Your task to perform on an android device: delete location history Image 0: 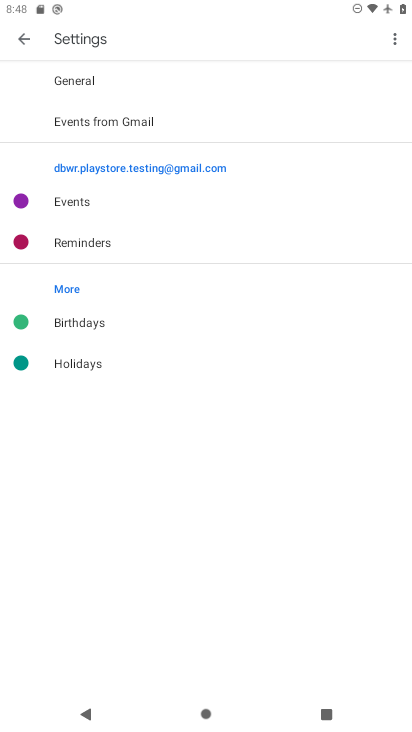
Step 0: press home button
Your task to perform on an android device: delete location history Image 1: 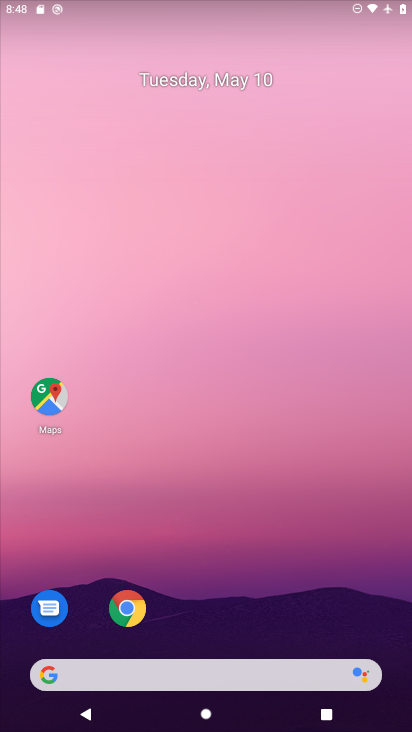
Step 1: drag from (187, 596) to (242, 237)
Your task to perform on an android device: delete location history Image 2: 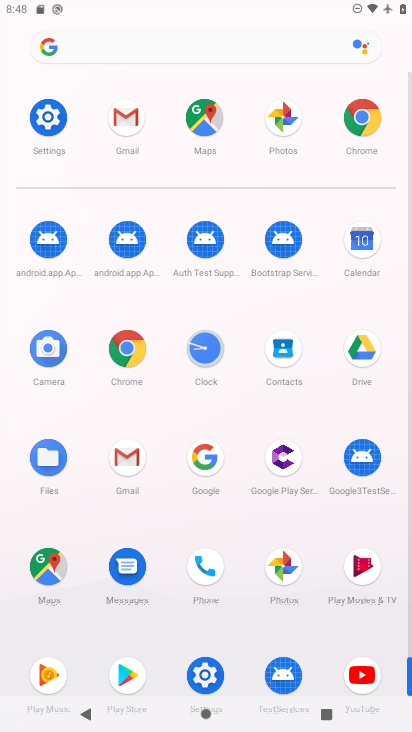
Step 2: click (207, 107)
Your task to perform on an android device: delete location history Image 3: 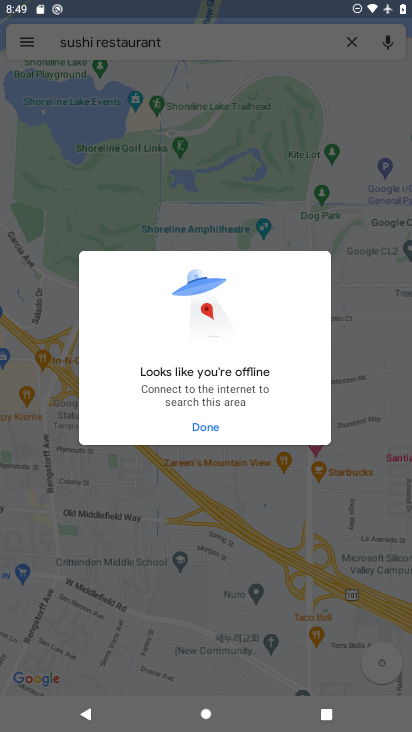
Step 3: click (212, 430)
Your task to perform on an android device: delete location history Image 4: 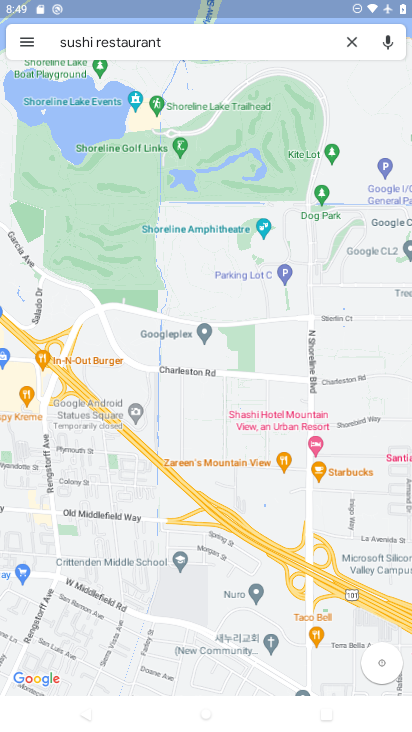
Step 4: click (18, 41)
Your task to perform on an android device: delete location history Image 5: 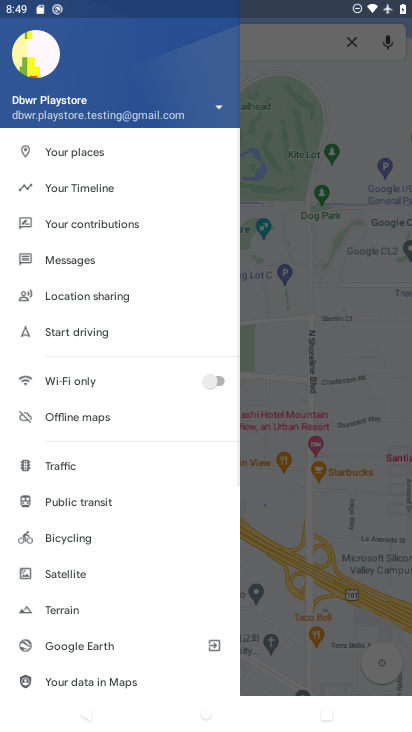
Step 5: click (60, 188)
Your task to perform on an android device: delete location history Image 6: 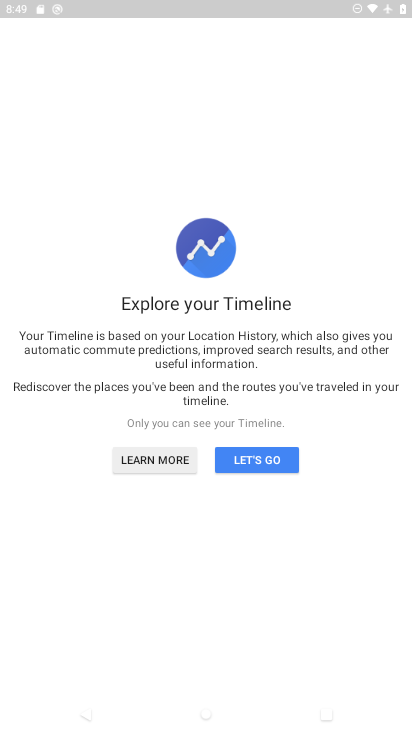
Step 6: click (255, 462)
Your task to perform on an android device: delete location history Image 7: 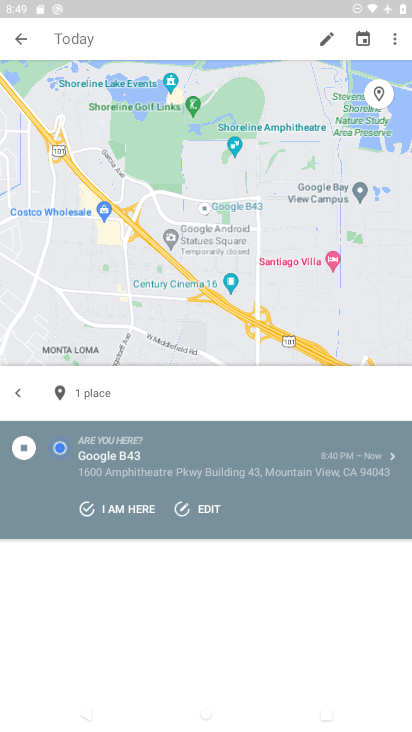
Step 7: click (389, 39)
Your task to perform on an android device: delete location history Image 8: 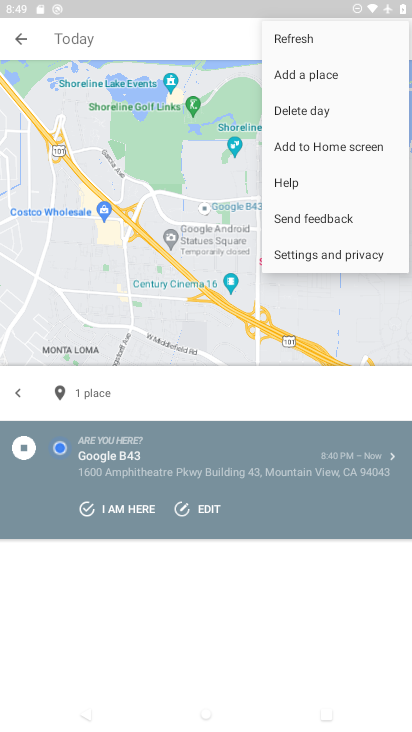
Step 8: click (312, 251)
Your task to perform on an android device: delete location history Image 9: 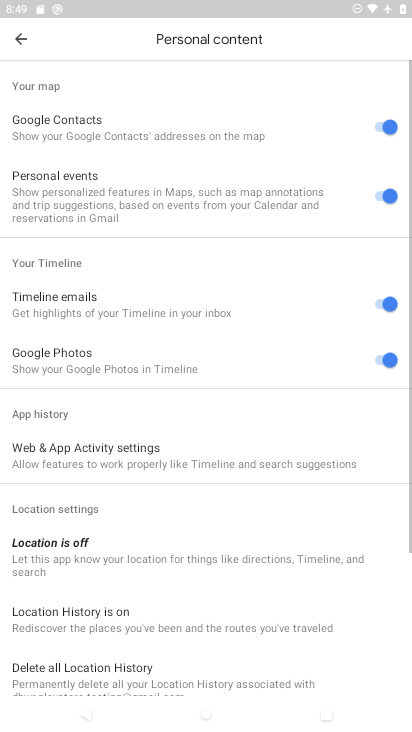
Step 9: click (117, 659)
Your task to perform on an android device: delete location history Image 10: 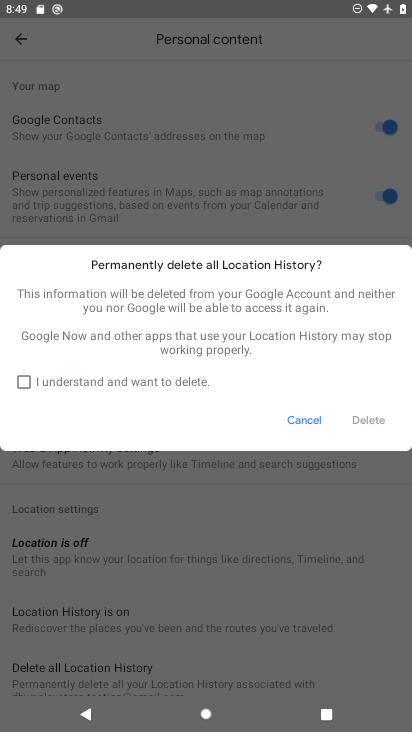
Step 10: click (54, 375)
Your task to perform on an android device: delete location history Image 11: 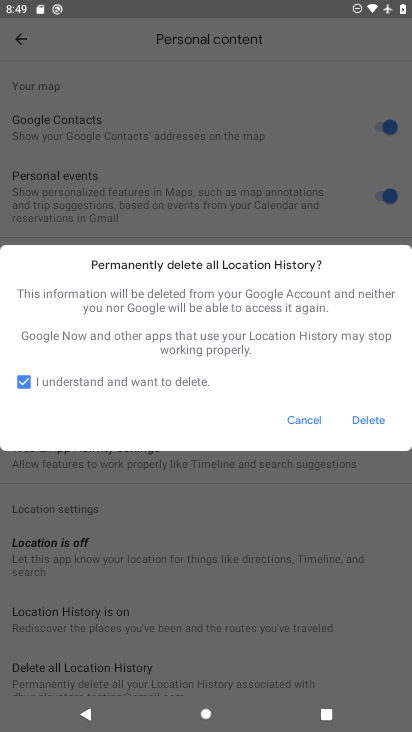
Step 11: click (362, 422)
Your task to perform on an android device: delete location history Image 12: 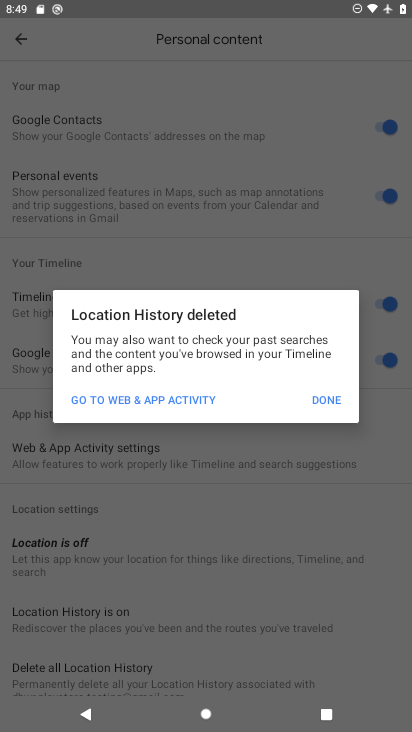
Step 12: click (322, 394)
Your task to perform on an android device: delete location history Image 13: 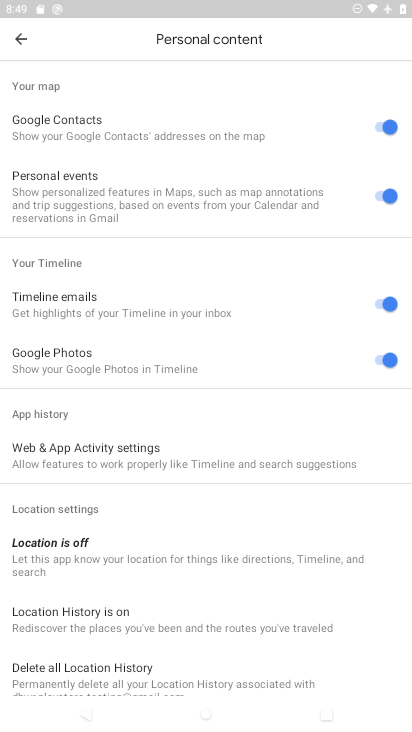
Step 13: task complete